Your task to perform on an android device: change keyboard looks Image 0: 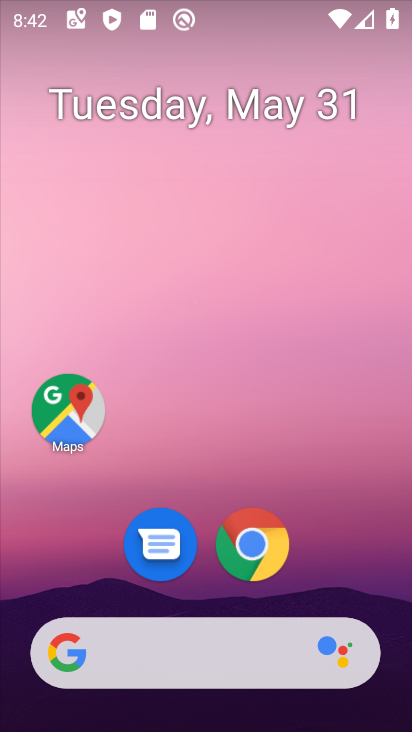
Step 0: drag from (209, 594) to (125, 0)
Your task to perform on an android device: change keyboard looks Image 1: 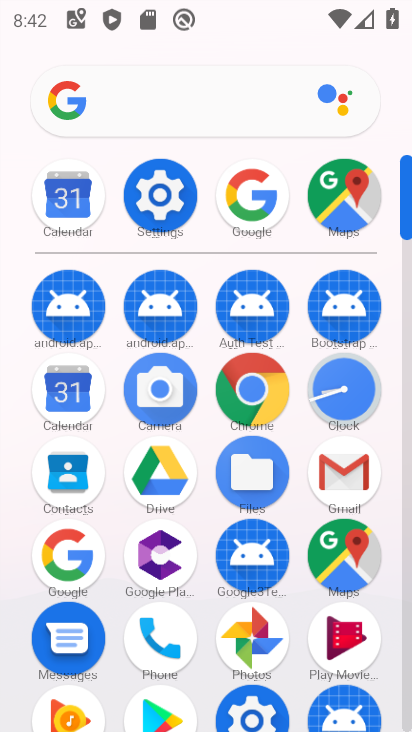
Step 1: click (161, 191)
Your task to perform on an android device: change keyboard looks Image 2: 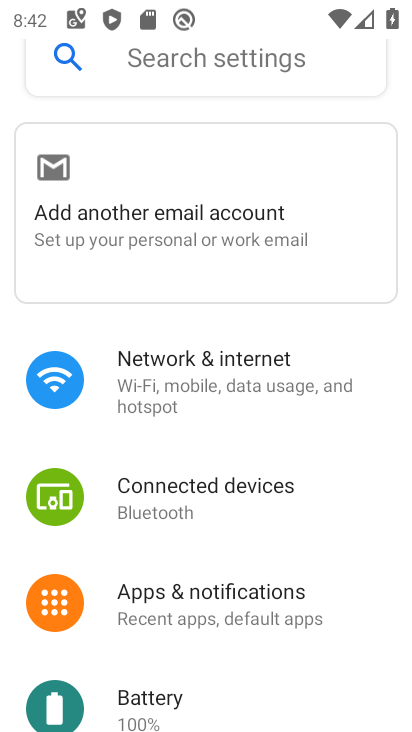
Step 2: drag from (267, 651) to (170, 128)
Your task to perform on an android device: change keyboard looks Image 3: 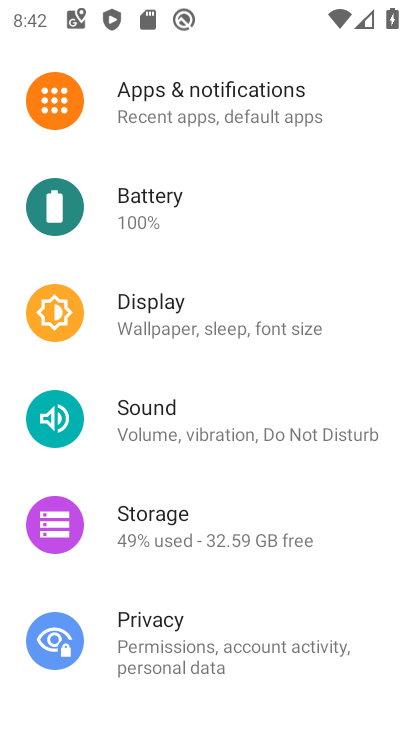
Step 3: drag from (130, 632) to (104, 111)
Your task to perform on an android device: change keyboard looks Image 4: 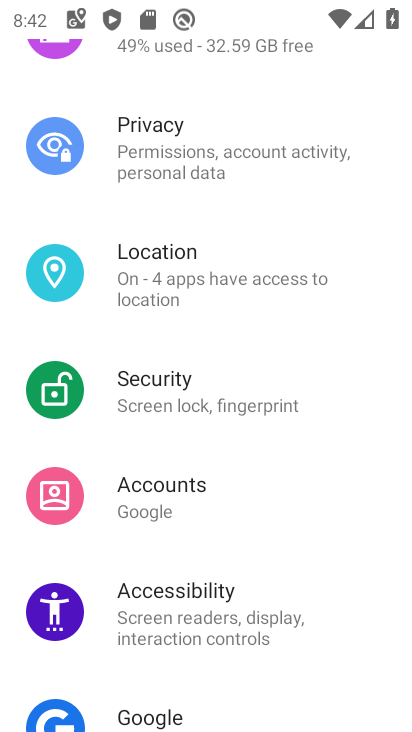
Step 4: drag from (250, 666) to (238, 144)
Your task to perform on an android device: change keyboard looks Image 5: 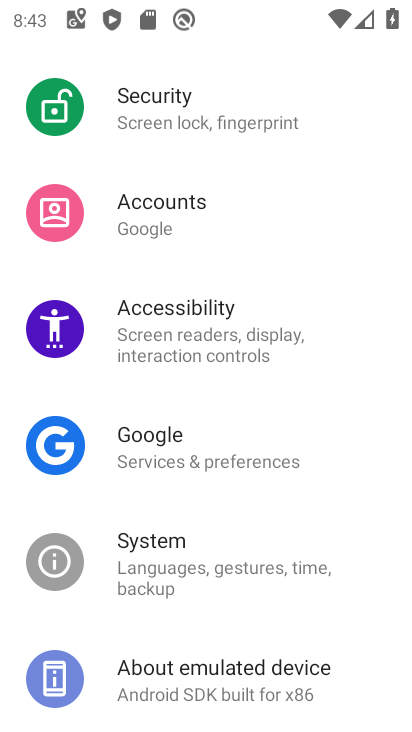
Step 5: click (226, 556)
Your task to perform on an android device: change keyboard looks Image 6: 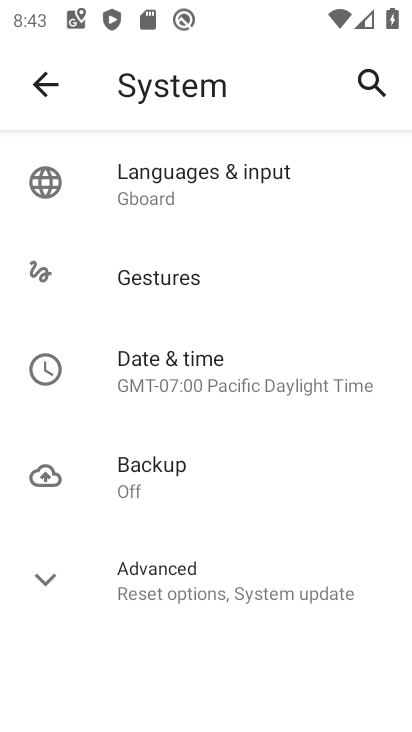
Step 6: click (264, 166)
Your task to perform on an android device: change keyboard looks Image 7: 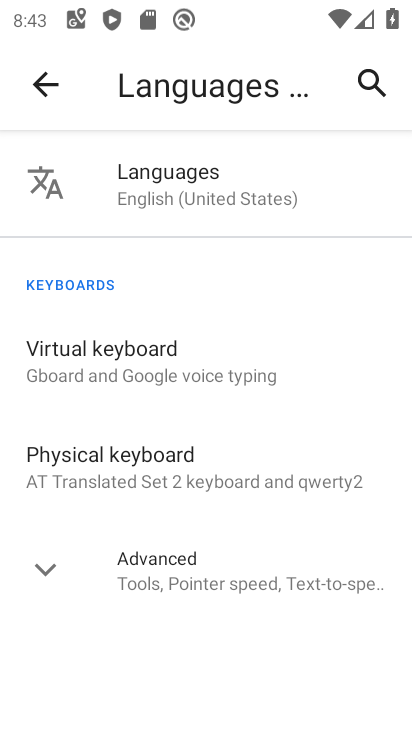
Step 7: click (59, 372)
Your task to perform on an android device: change keyboard looks Image 8: 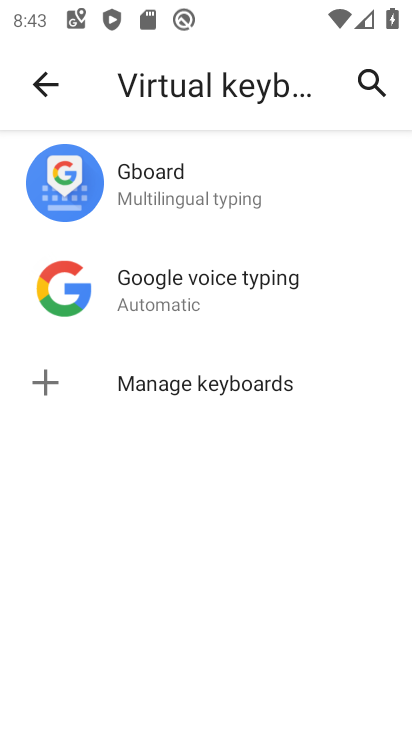
Step 8: click (135, 196)
Your task to perform on an android device: change keyboard looks Image 9: 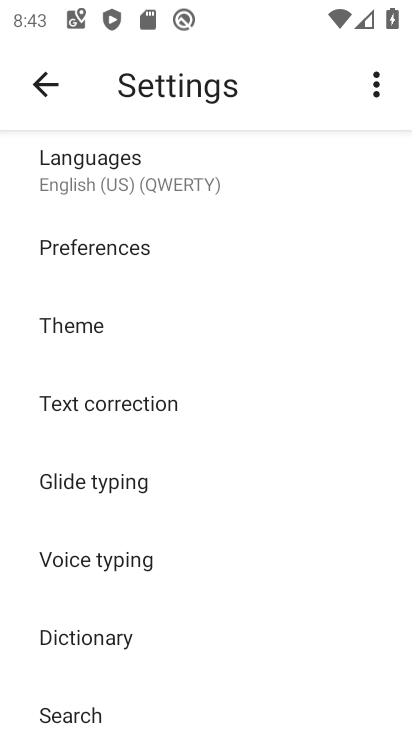
Step 9: click (136, 316)
Your task to perform on an android device: change keyboard looks Image 10: 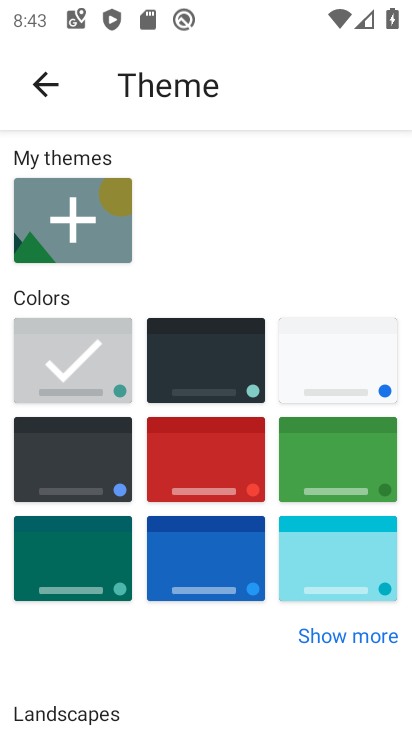
Step 10: click (225, 590)
Your task to perform on an android device: change keyboard looks Image 11: 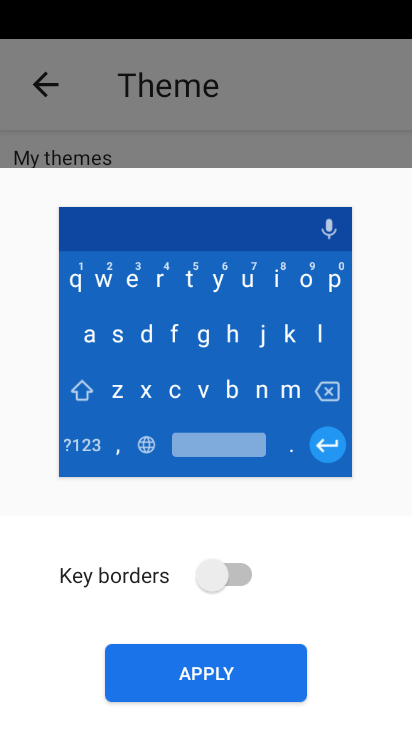
Step 11: click (200, 673)
Your task to perform on an android device: change keyboard looks Image 12: 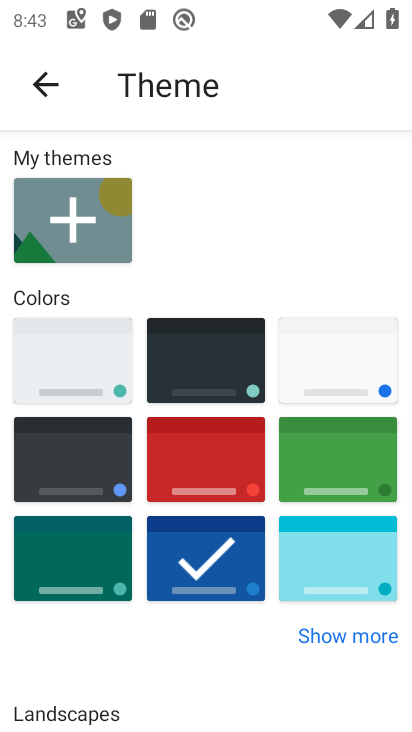
Step 12: task complete